Your task to perform on an android device: Open Chrome and go to settings Image 0: 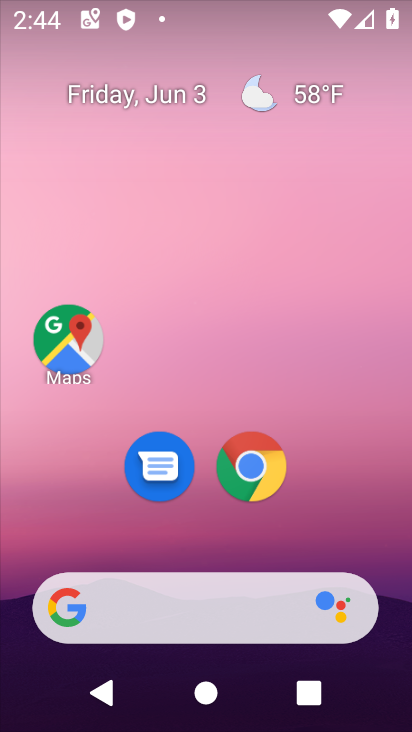
Step 0: click (241, 470)
Your task to perform on an android device: Open Chrome and go to settings Image 1: 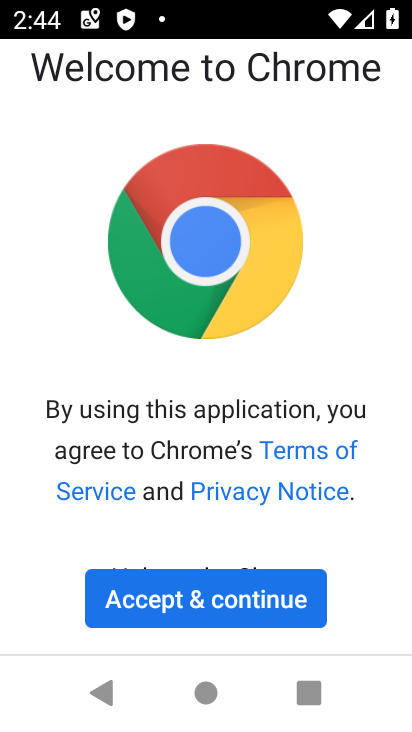
Step 1: click (234, 593)
Your task to perform on an android device: Open Chrome and go to settings Image 2: 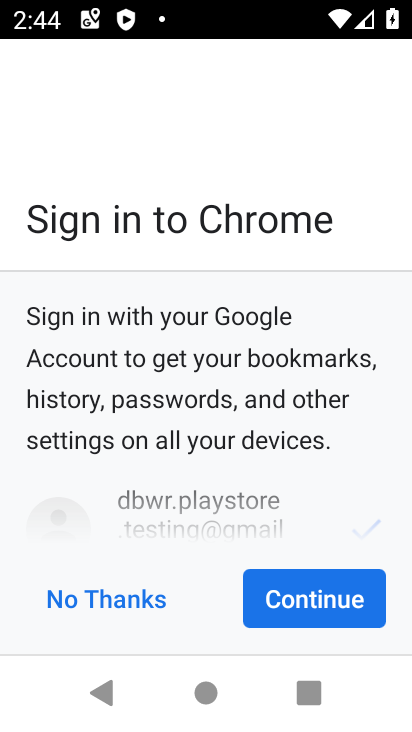
Step 2: click (275, 592)
Your task to perform on an android device: Open Chrome and go to settings Image 3: 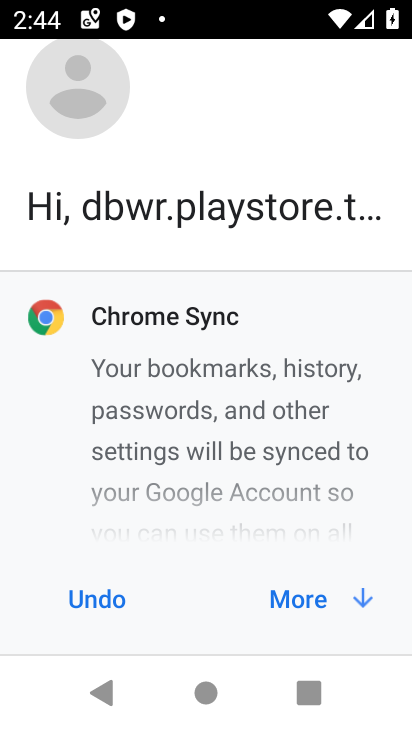
Step 3: click (275, 592)
Your task to perform on an android device: Open Chrome and go to settings Image 4: 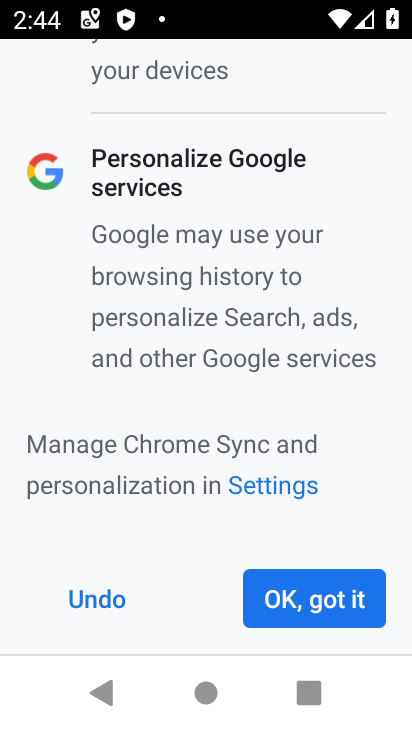
Step 4: click (275, 592)
Your task to perform on an android device: Open Chrome and go to settings Image 5: 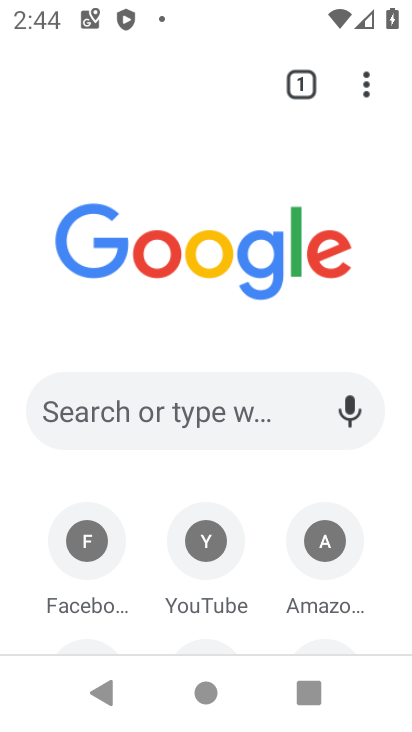
Step 5: click (368, 67)
Your task to perform on an android device: Open Chrome and go to settings Image 6: 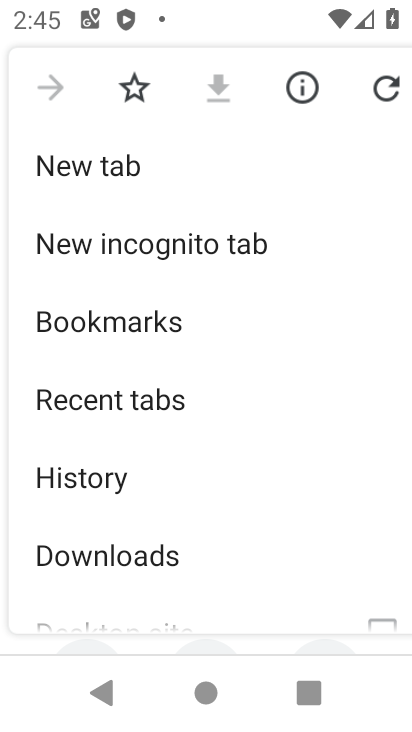
Step 6: press back button
Your task to perform on an android device: Open Chrome and go to settings Image 7: 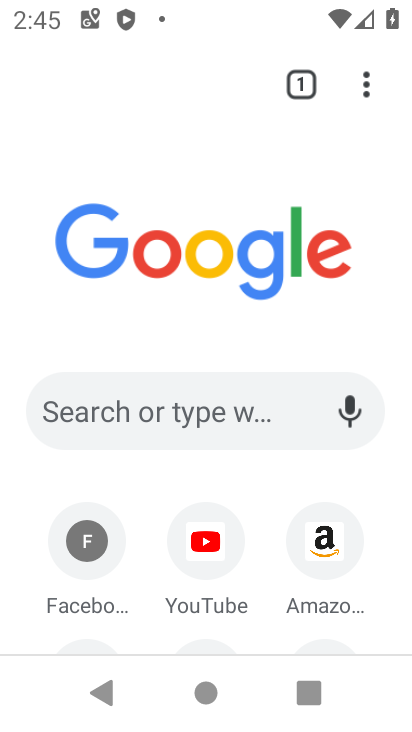
Step 7: click (361, 103)
Your task to perform on an android device: Open Chrome and go to settings Image 8: 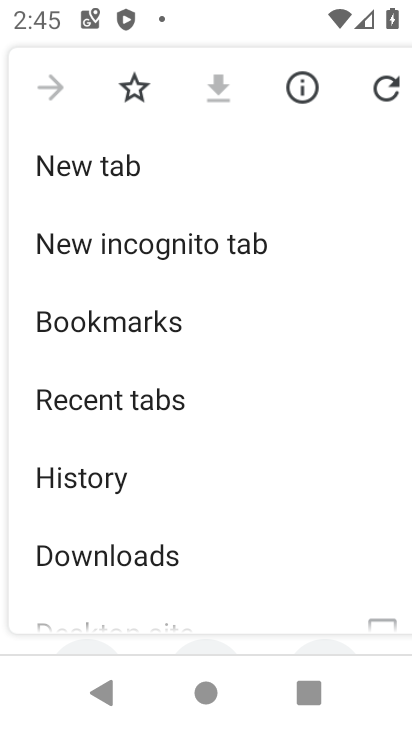
Step 8: drag from (359, 520) to (357, 422)
Your task to perform on an android device: Open Chrome and go to settings Image 9: 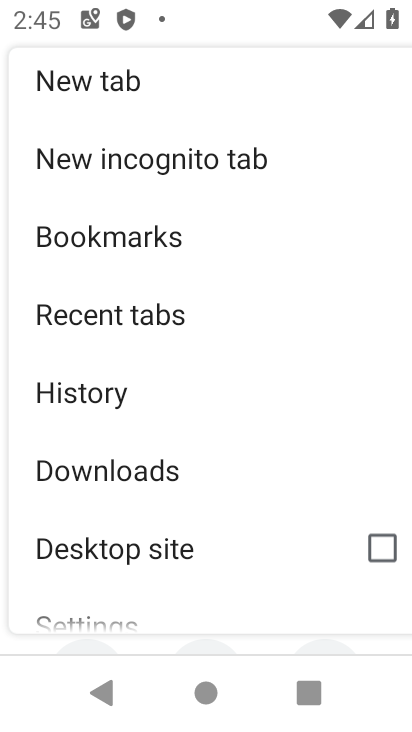
Step 9: click (144, 602)
Your task to perform on an android device: Open Chrome and go to settings Image 10: 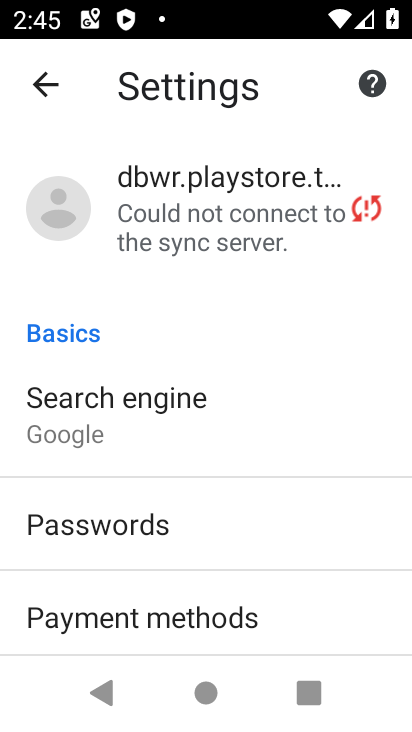
Step 10: task complete